Your task to perform on an android device: add a contact in the contacts app Image 0: 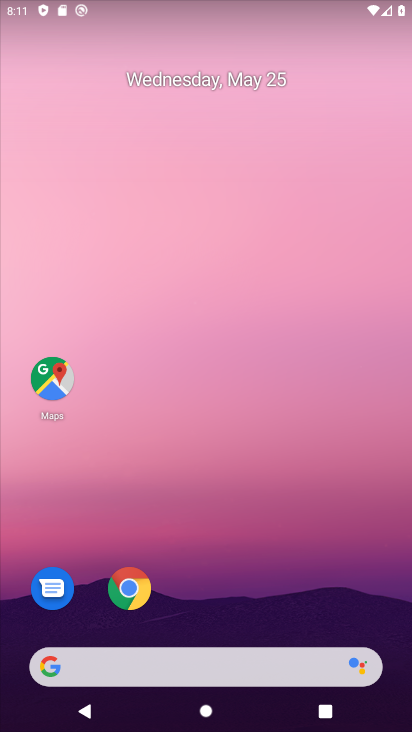
Step 0: click (61, 696)
Your task to perform on an android device: add a contact in the contacts app Image 1: 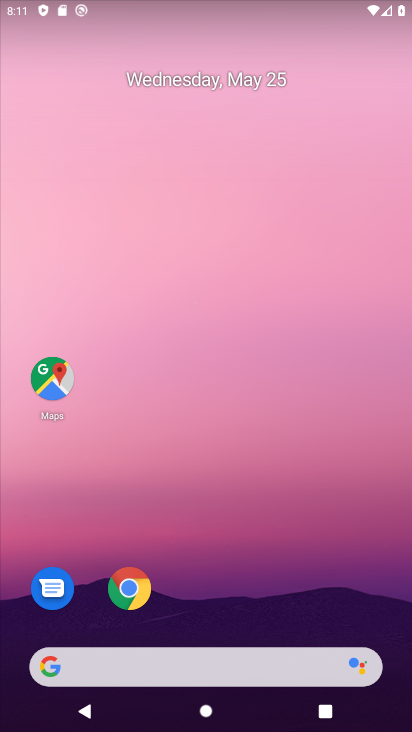
Step 1: click (48, 693)
Your task to perform on an android device: add a contact in the contacts app Image 2: 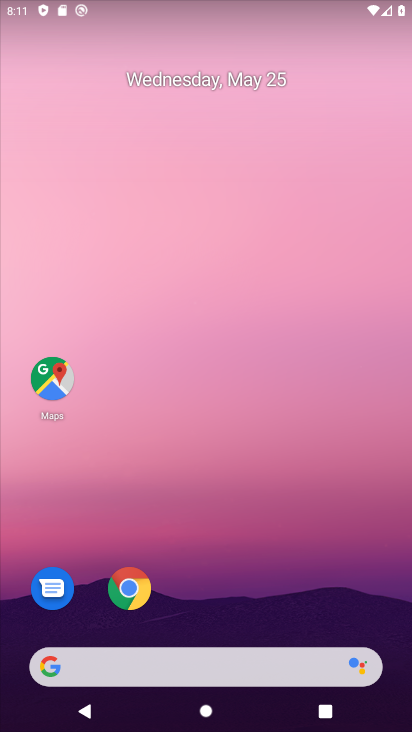
Step 2: drag from (60, 495) to (264, 169)
Your task to perform on an android device: add a contact in the contacts app Image 3: 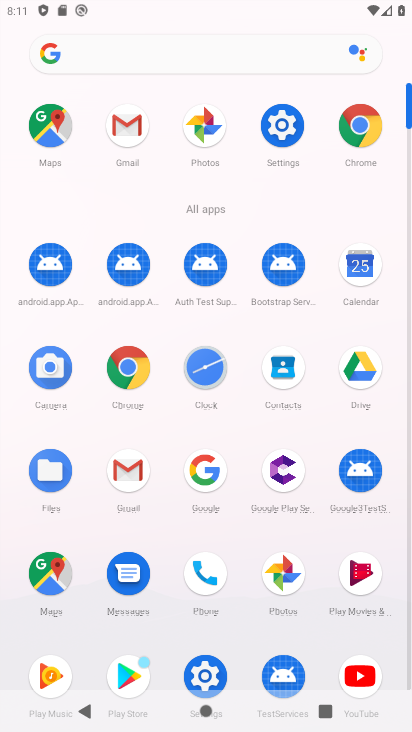
Step 3: click (289, 134)
Your task to perform on an android device: add a contact in the contacts app Image 4: 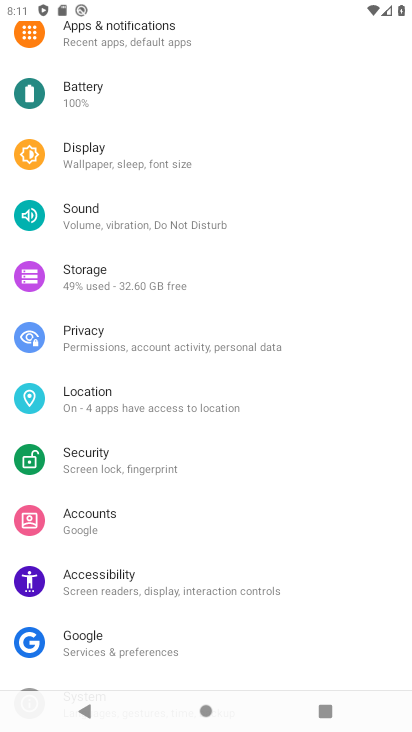
Step 4: click (282, 127)
Your task to perform on an android device: add a contact in the contacts app Image 5: 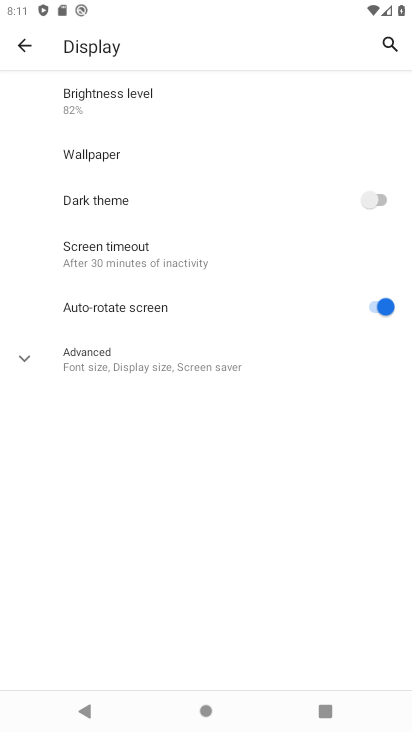
Step 5: press home button
Your task to perform on an android device: add a contact in the contacts app Image 6: 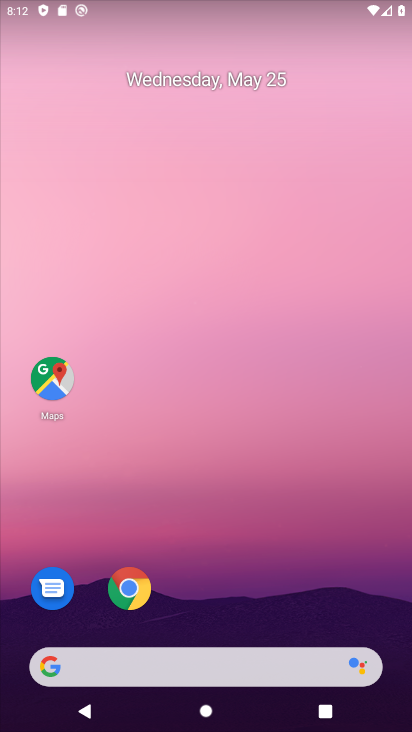
Step 6: drag from (52, 467) to (257, 119)
Your task to perform on an android device: add a contact in the contacts app Image 7: 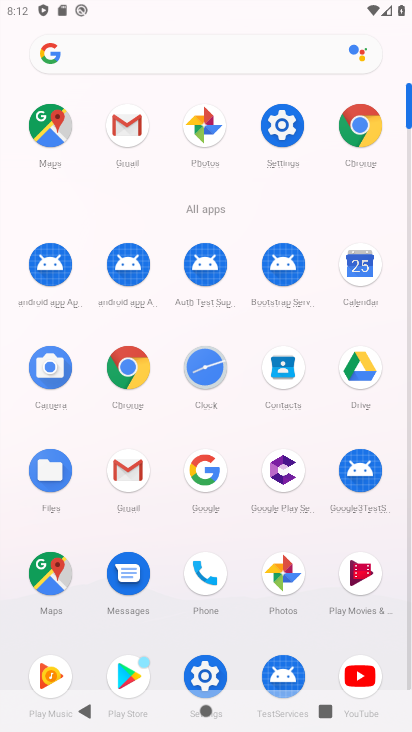
Step 7: click (207, 578)
Your task to perform on an android device: add a contact in the contacts app Image 8: 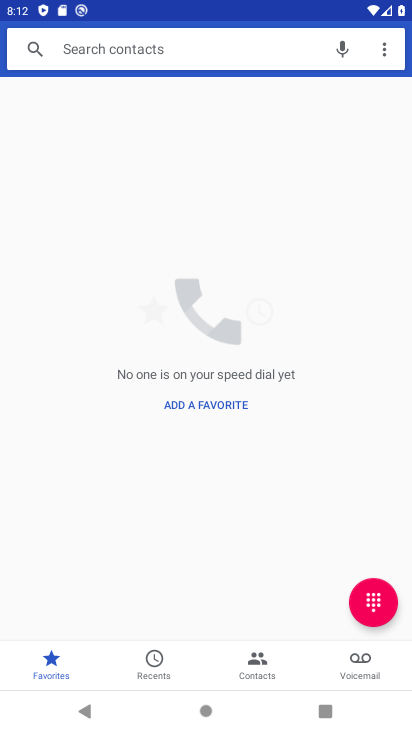
Step 8: click (263, 685)
Your task to perform on an android device: add a contact in the contacts app Image 9: 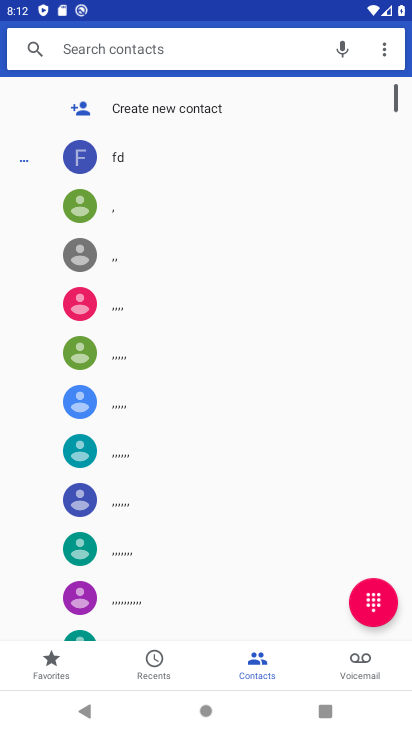
Step 9: click (237, 105)
Your task to perform on an android device: add a contact in the contacts app Image 10: 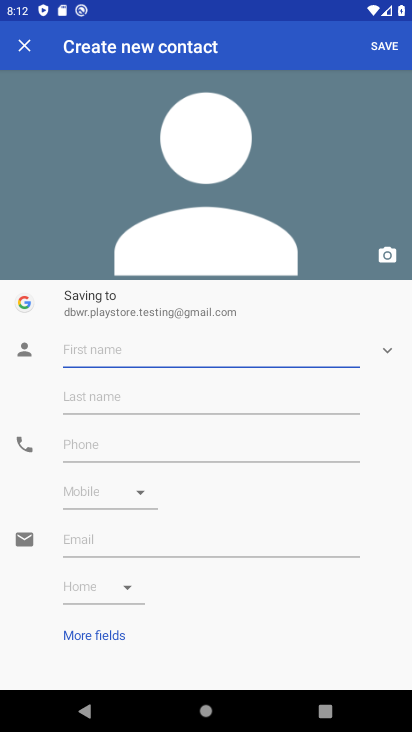
Step 10: click (92, 349)
Your task to perform on an android device: add a contact in the contacts app Image 11: 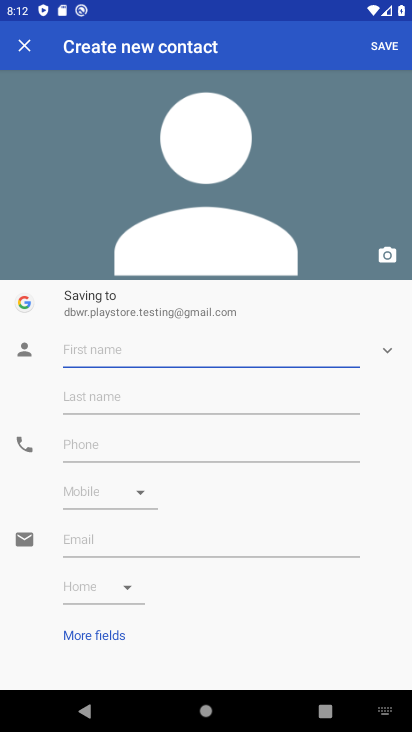
Step 11: type "hhgvbfgv"
Your task to perform on an android device: add a contact in the contacts app Image 12: 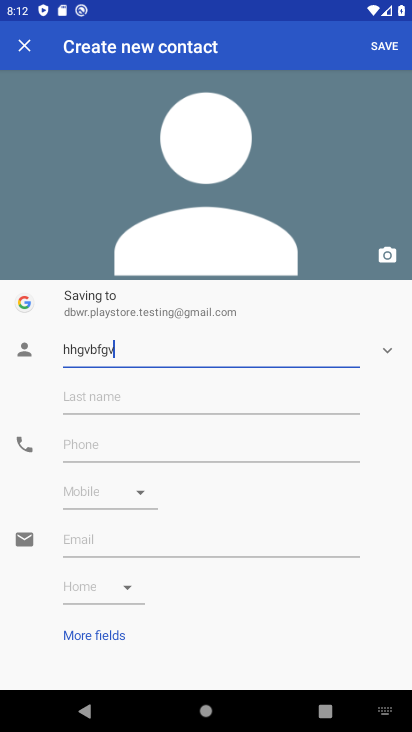
Step 12: type ""
Your task to perform on an android device: add a contact in the contacts app Image 13: 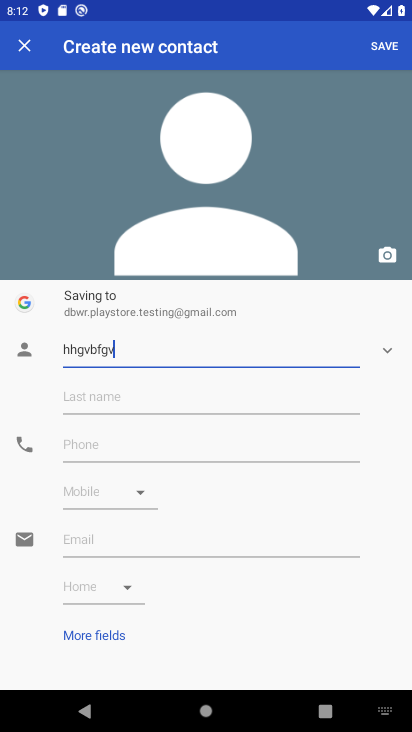
Step 13: click (364, 59)
Your task to perform on an android device: add a contact in the contacts app Image 14: 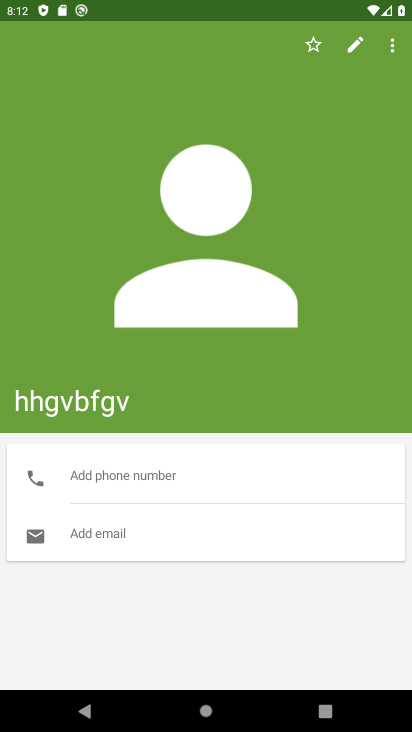
Step 14: task complete